Your task to perform on an android device: turn notification dots off Image 0: 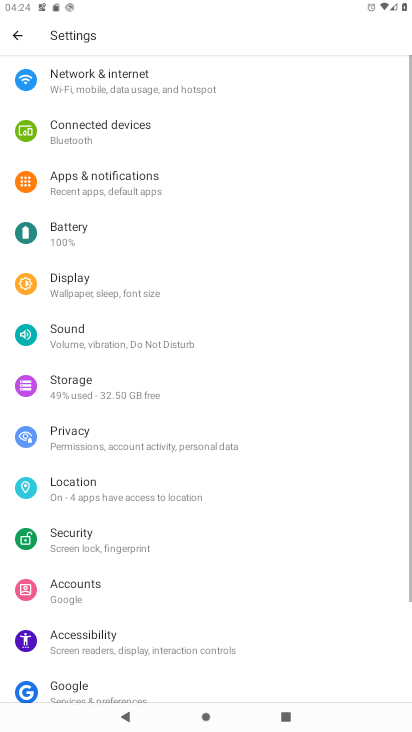
Step 0: click (137, 177)
Your task to perform on an android device: turn notification dots off Image 1: 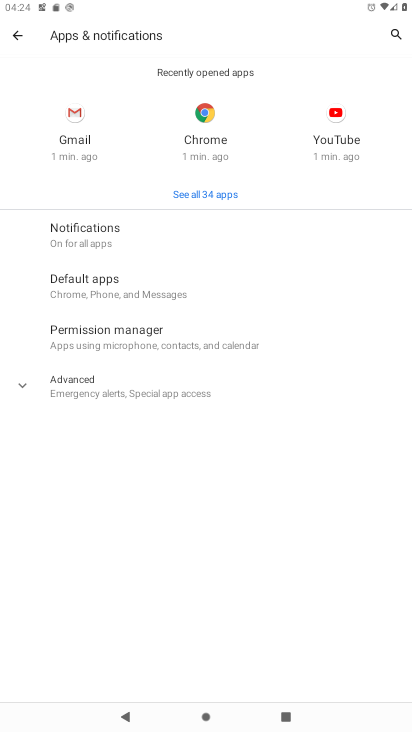
Step 1: click (95, 228)
Your task to perform on an android device: turn notification dots off Image 2: 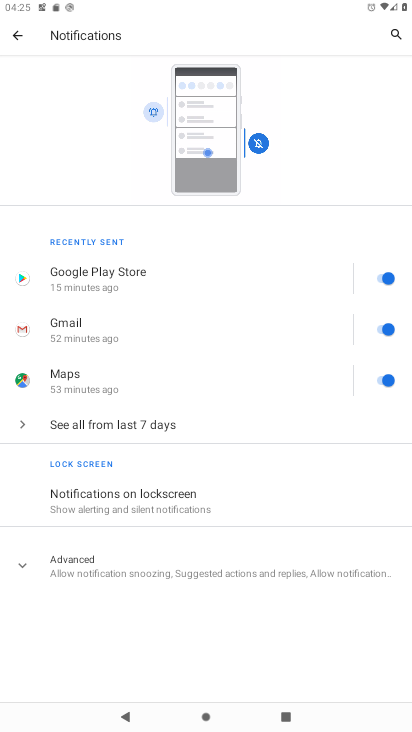
Step 2: click (164, 567)
Your task to perform on an android device: turn notification dots off Image 3: 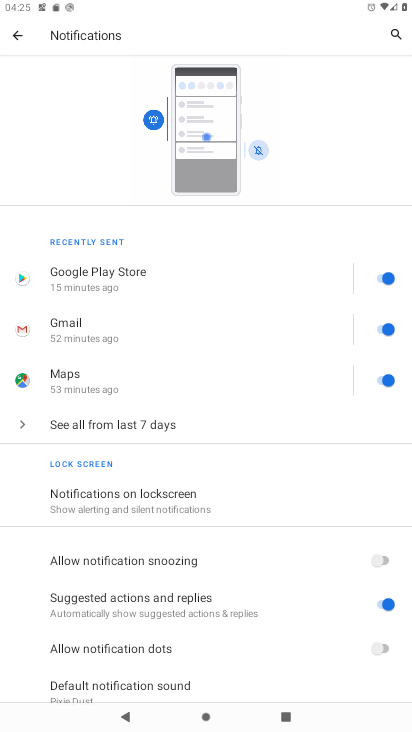
Step 3: task complete